Your task to perform on an android device: Go to privacy settings Image 0: 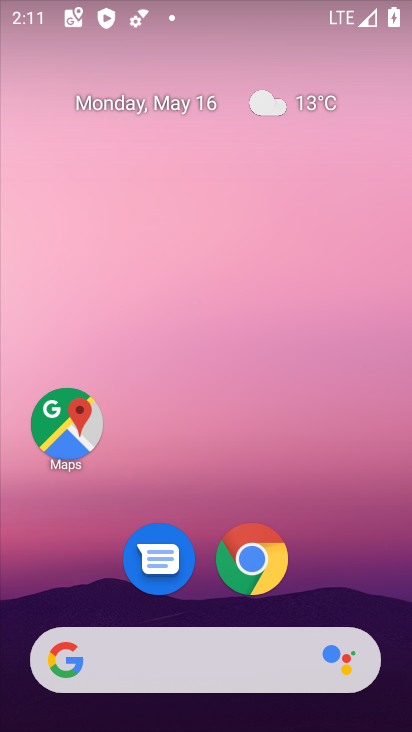
Step 0: drag from (176, 619) to (294, 139)
Your task to perform on an android device: Go to privacy settings Image 1: 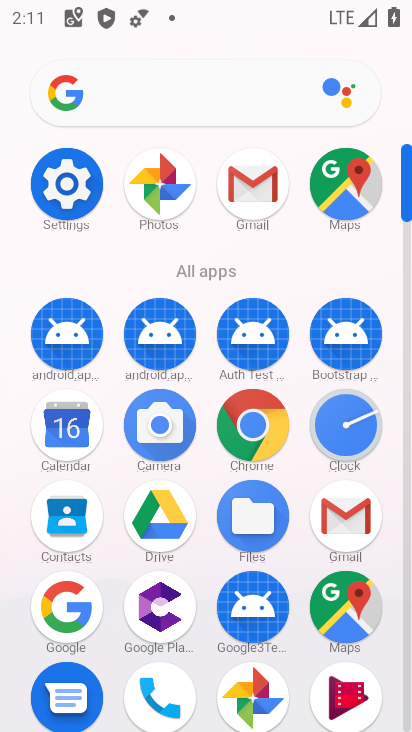
Step 1: click (35, 187)
Your task to perform on an android device: Go to privacy settings Image 2: 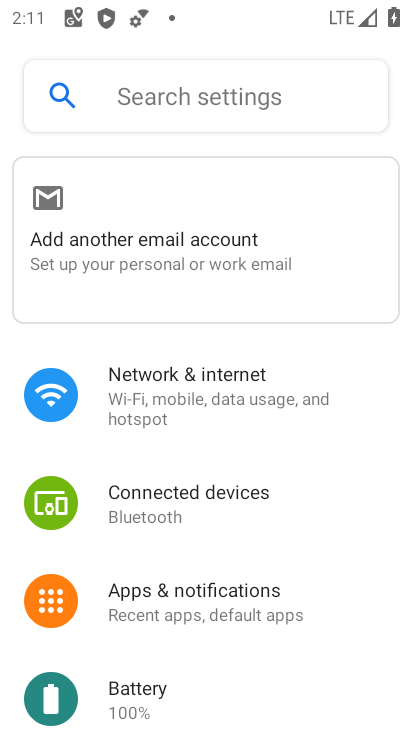
Step 2: drag from (148, 620) to (262, 213)
Your task to perform on an android device: Go to privacy settings Image 3: 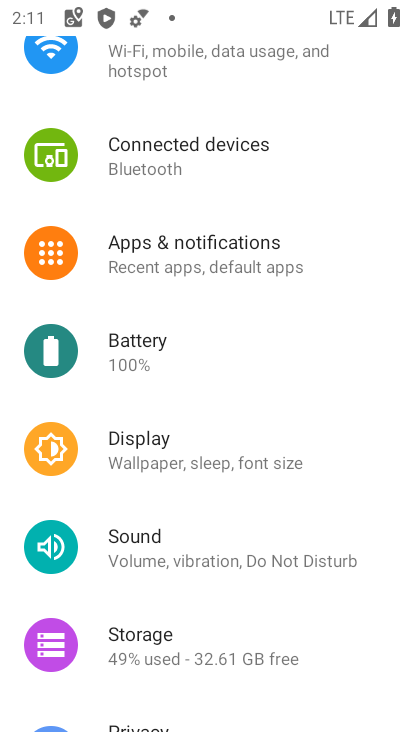
Step 3: drag from (194, 626) to (285, 208)
Your task to perform on an android device: Go to privacy settings Image 4: 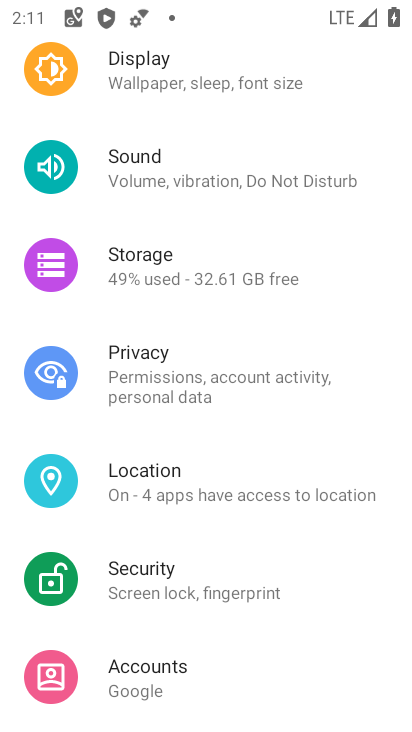
Step 4: click (154, 358)
Your task to perform on an android device: Go to privacy settings Image 5: 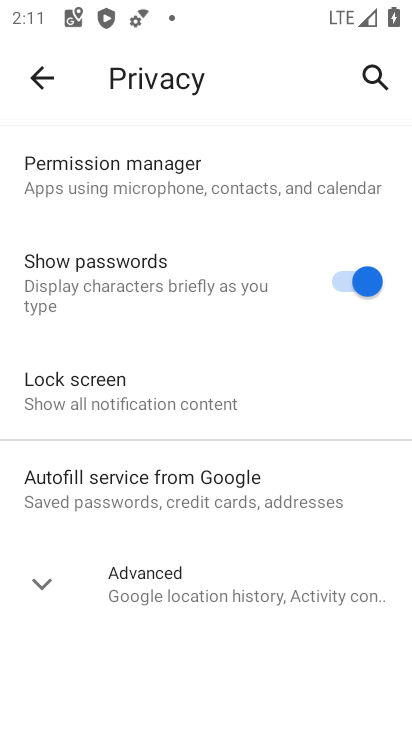
Step 5: task complete